Your task to perform on an android device: Go to location settings Image 0: 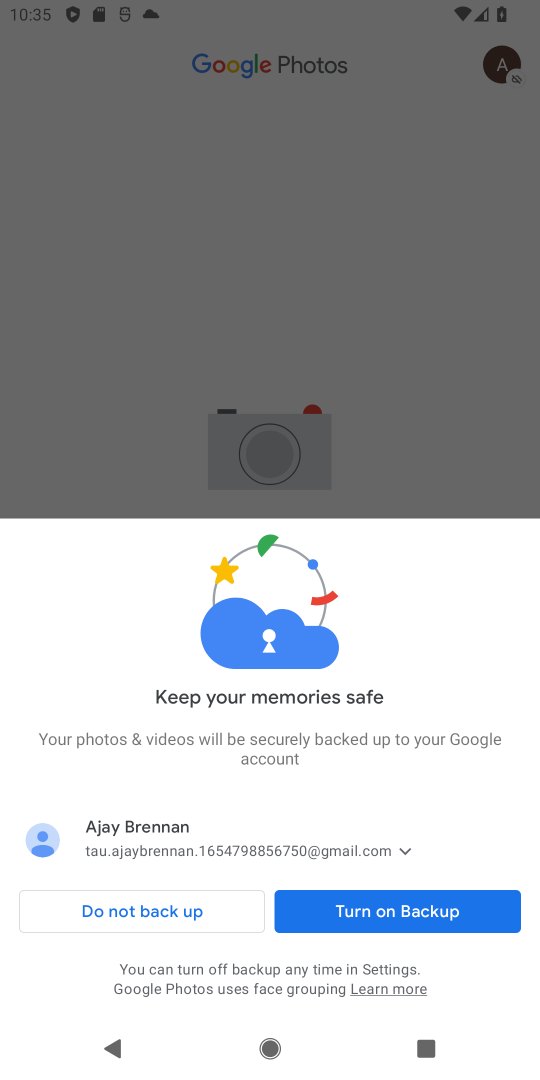
Step 0: press home button
Your task to perform on an android device: Go to location settings Image 1: 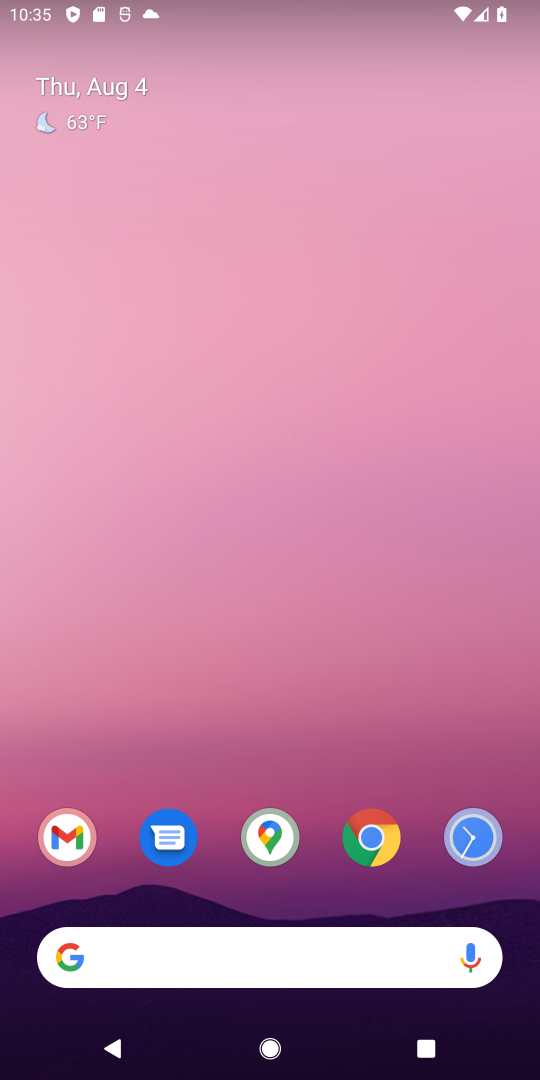
Step 1: drag from (284, 924) to (308, 79)
Your task to perform on an android device: Go to location settings Image 2: 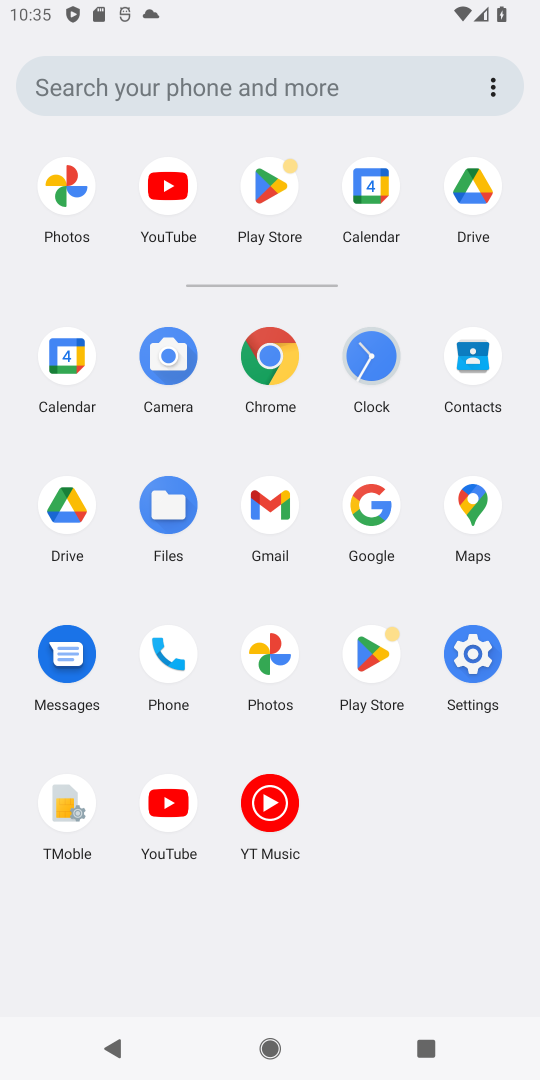
Step 2: click (469, 650)
Your task to perform on an android device: Go to location settings Image 3: 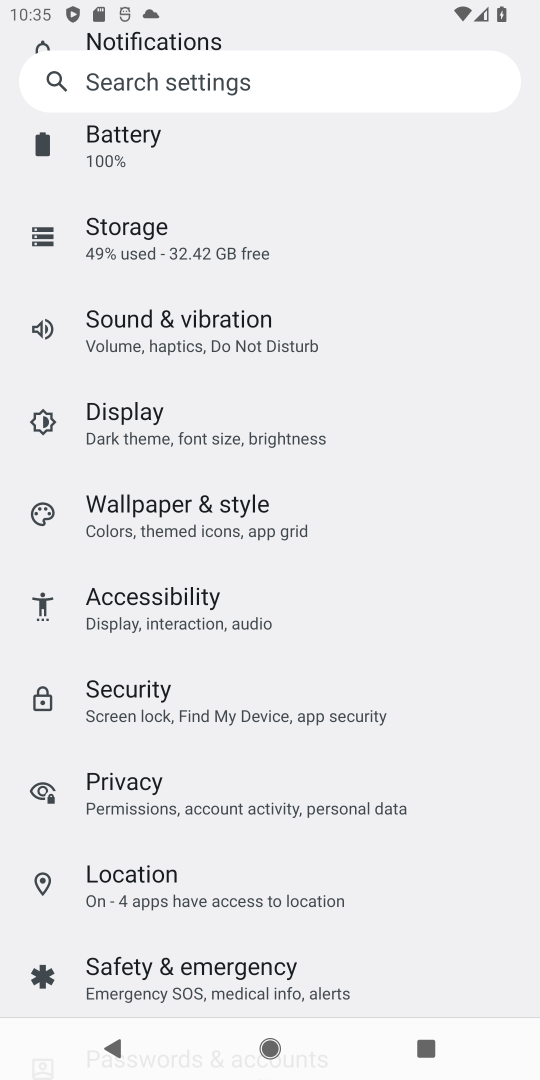
Step 3: click (163, 897)
Your task to perform on an android device: Go to location settings Image 4: 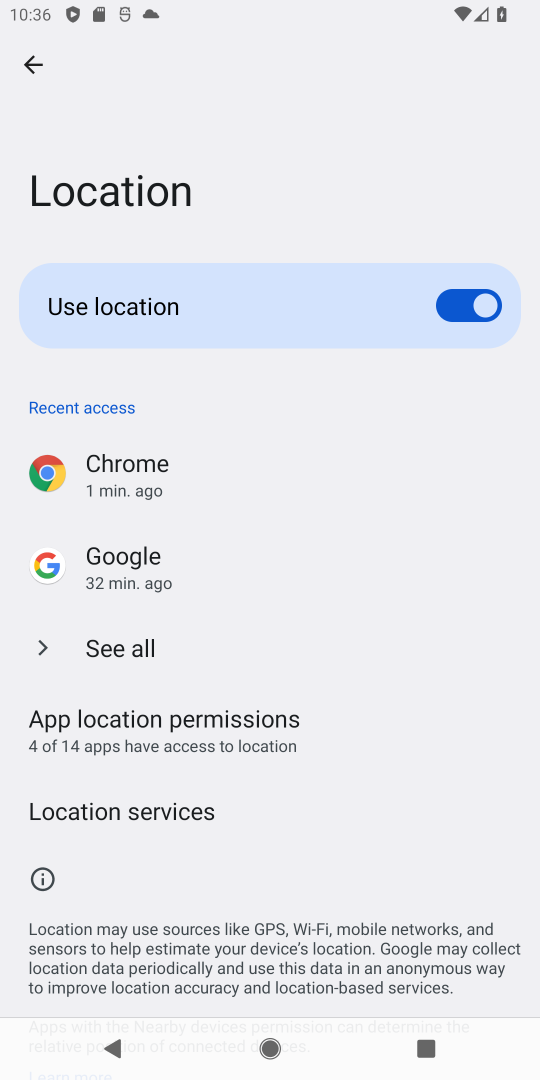
Step 4: task complete